Your task to perform on an android device: Open calendar and show me the second week of next month Image 0: 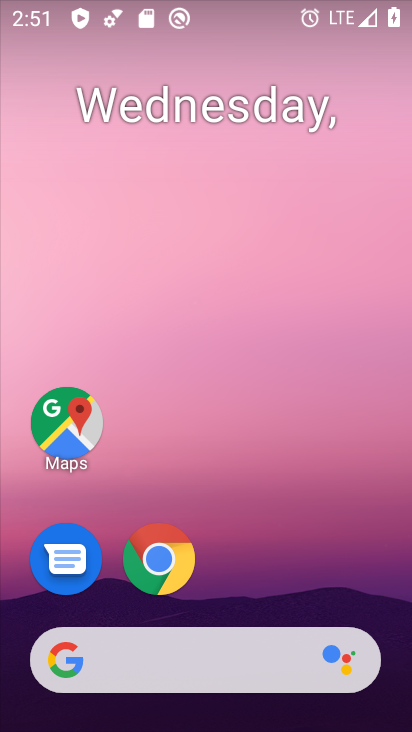
Step 0: drag from (228, 585) to (269, 0)
Your task to perform on an android device: Open calendar and show me the second week of next month Image 1: 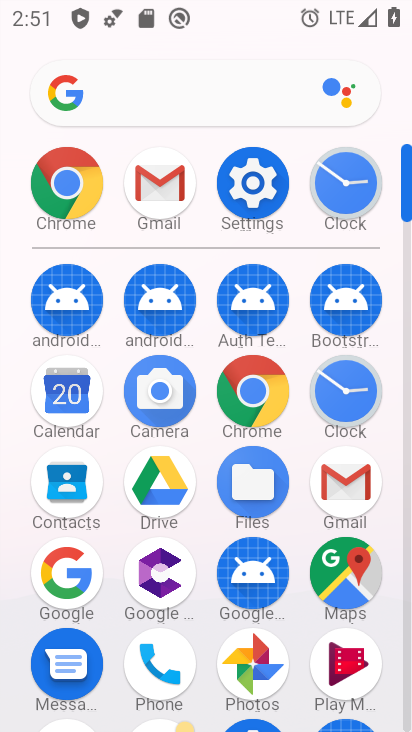
Step 1: click (55, 408)
Your task to perform on an android device: Open calendar and show me the second week of next month Image 2: 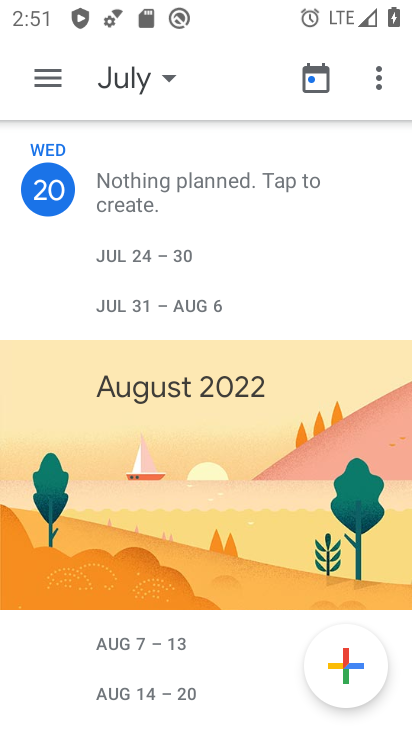
Step 2: click (152, 71)
Your task to perform on an android device: Open calendar and show me the second week of next month Image 3: 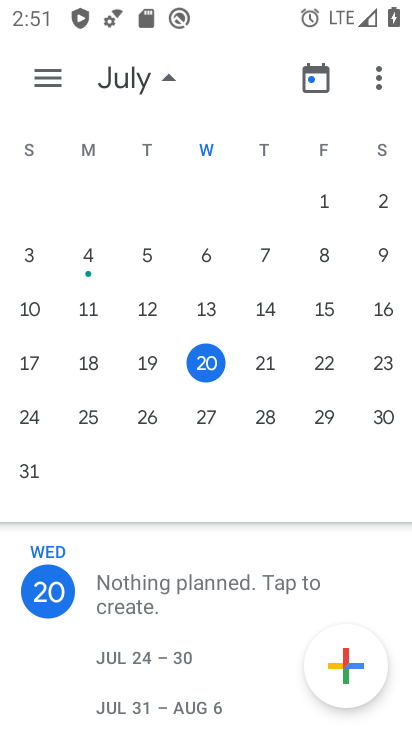
Step 3: drag from (358, 361) to (17, 332)
Your task to perform on an android device: Open calendar and show me the second week of next month Image 4: 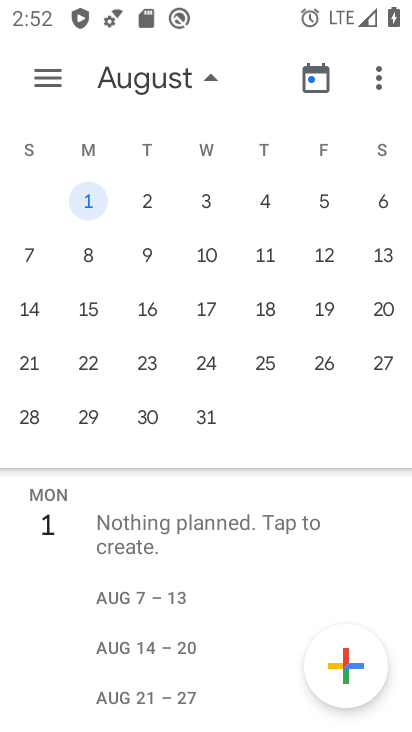
Step 4: click (88, 245)
Your task to perform on an android device: Open calendar and show me the second week of next month Image 5: 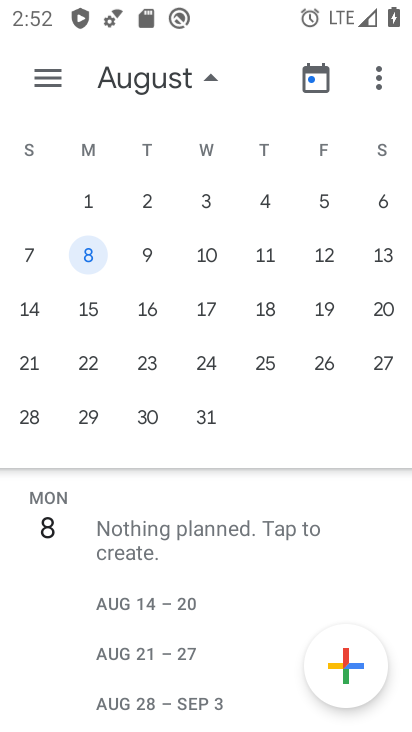
Step 5: task complete